Your task to perform on an android device: open app "YouTube Kids" (install if not already installed) and go to login screen Image 0: 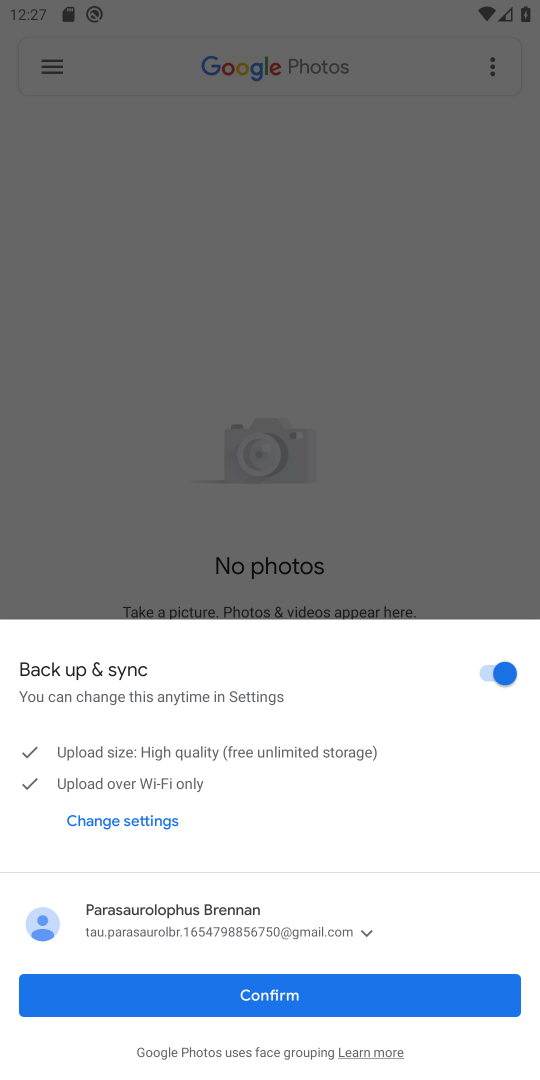
Step 0: press home button
Your task to perform on an android device: open app "YouTube Kids" (install if not already installed) and go to login screen Image 1: 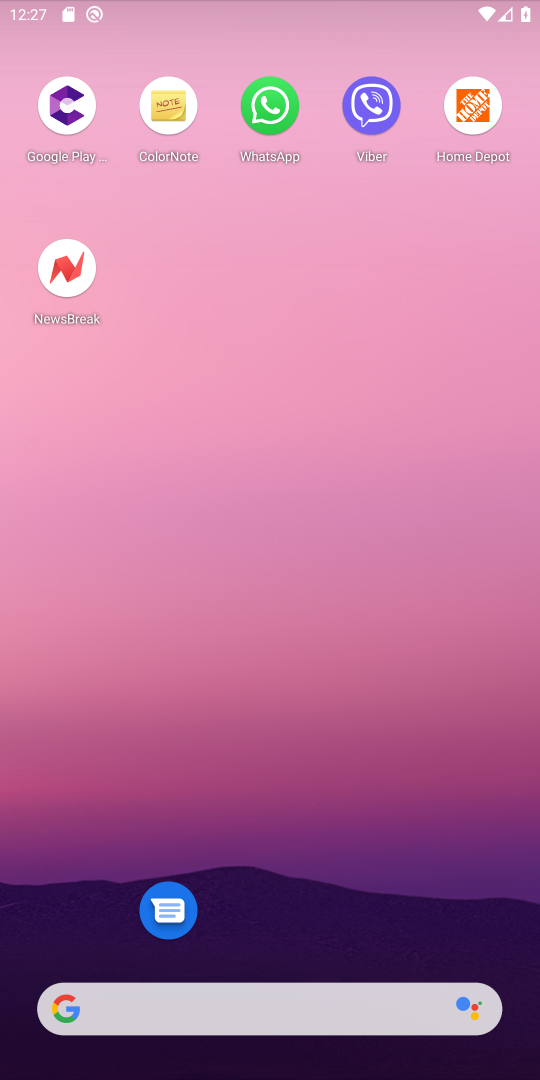
Step 1: drag from (375, 636) to (458, 27)
Your task to perform on an android device: open app "YouTube Kids" (install if not already installed) and go to login screen Image 2: 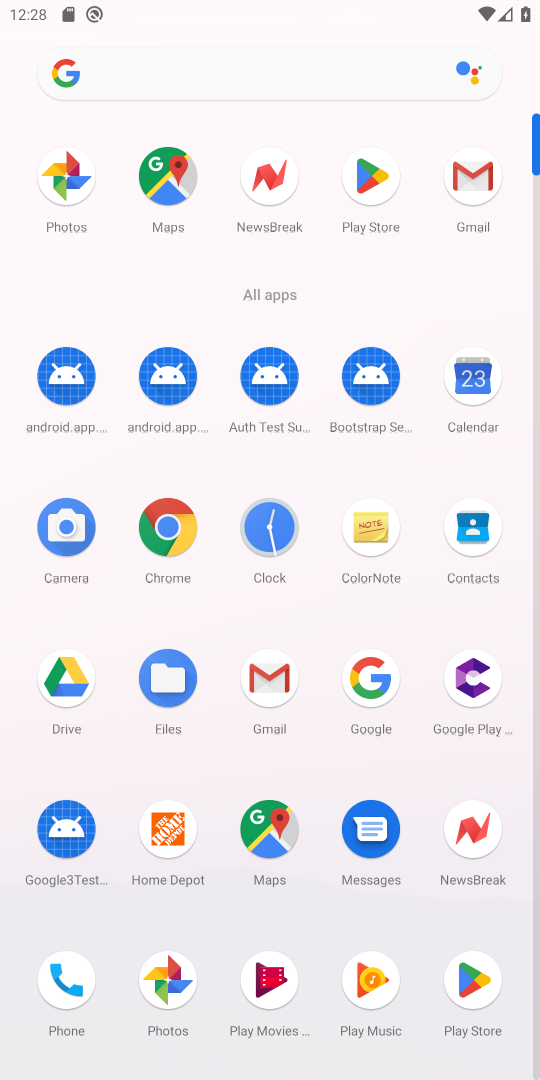
Step 2: click (375, 174)
Your task to perform on an android device: open app "YouTube Kids" (install if not already installed) and go to login screen Image 3: 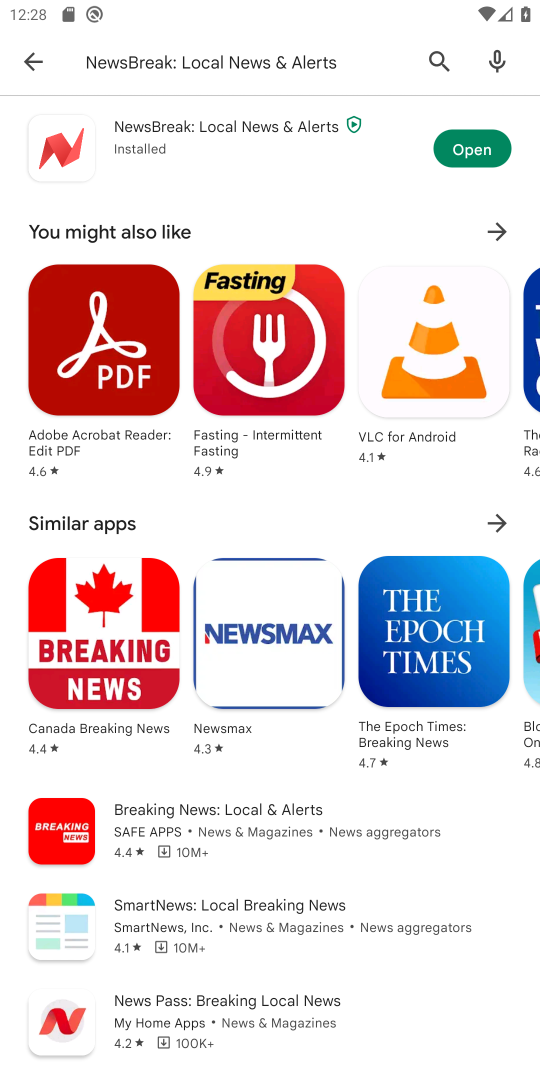
Step 3: press back button
Your task to perform on an android device: open app "YouTube Kids" (install if not already installed) and go to login screen Image 4: 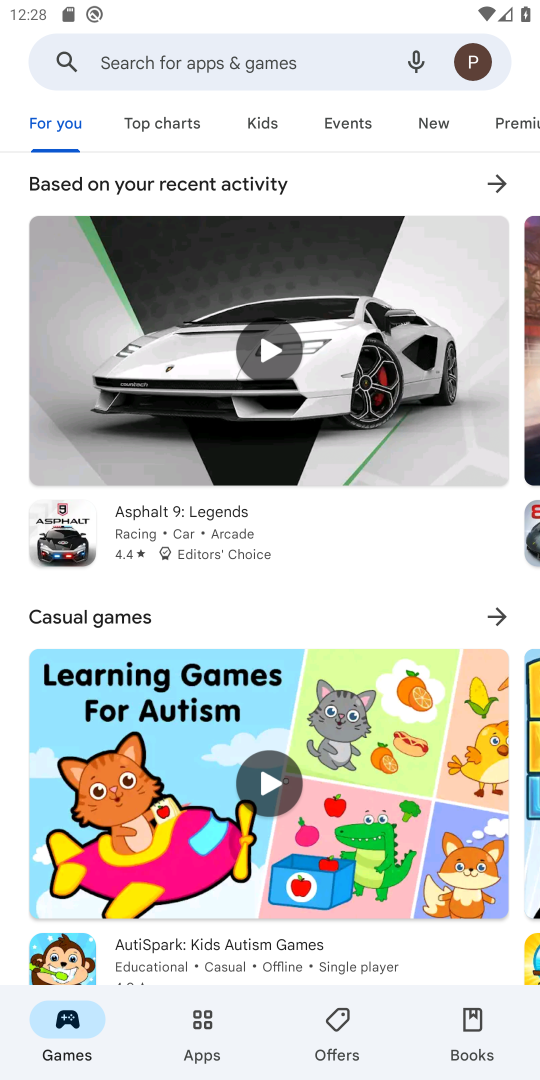
Step 4: click (276, 68)
Your task to perform on an android device: open app "YouTube Kids" (install if not already installed) and go to login screen Image 5: 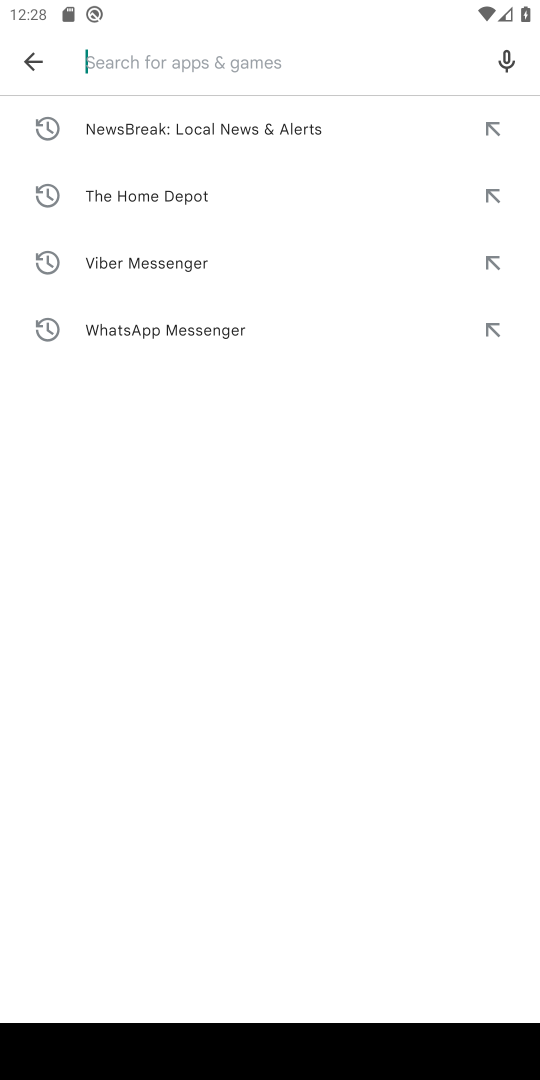
Step 5: type "YouTube Kids"
Your task to perform on an android device: open app "YouTube Kids" (install if not already installed) and go to login screen Image 6: 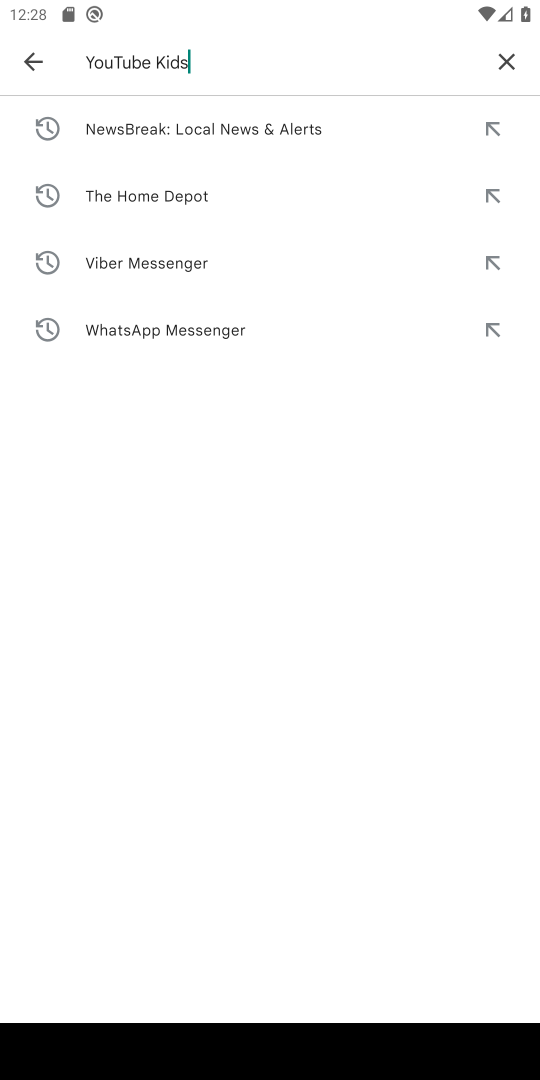
Step 6: press enter
Your task to perform on an android device: open app "YouTube Kids" (install if not already installed) and go to login screen Image 7: 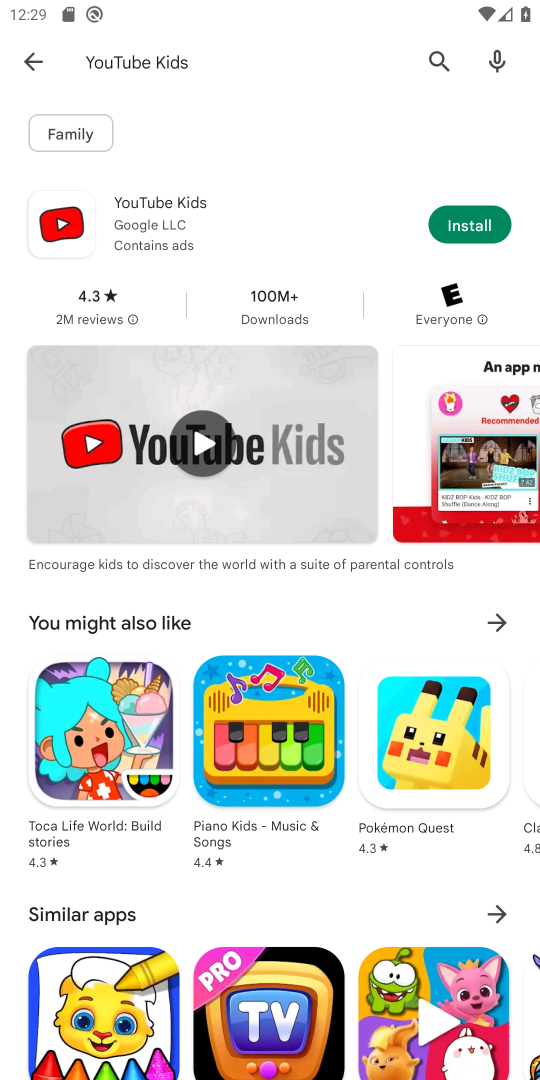
Step 7: click (478, 216)
Your task to perform on an android device: open app "YouTube Kids" (install if not already installed) and go to login screen Image 8: 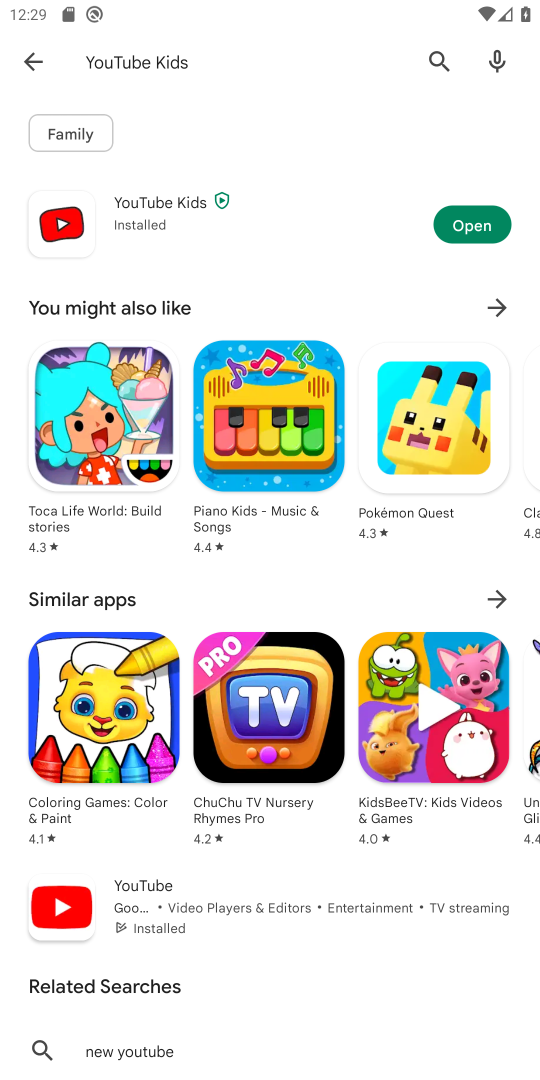
Step 8: click (501, 220)
Your task to perform on an android device: open app "YouTube Kids" (install if not already installed) and go to login screen Image 9: 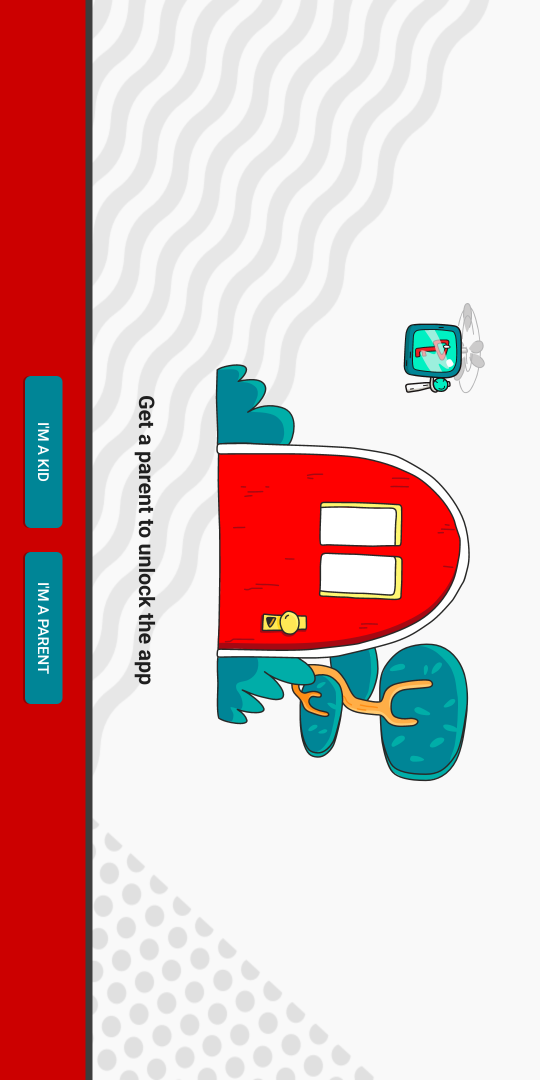
Step 9: task complete